Your task to perform on an android device: Go to Yahoo.com Image 0: 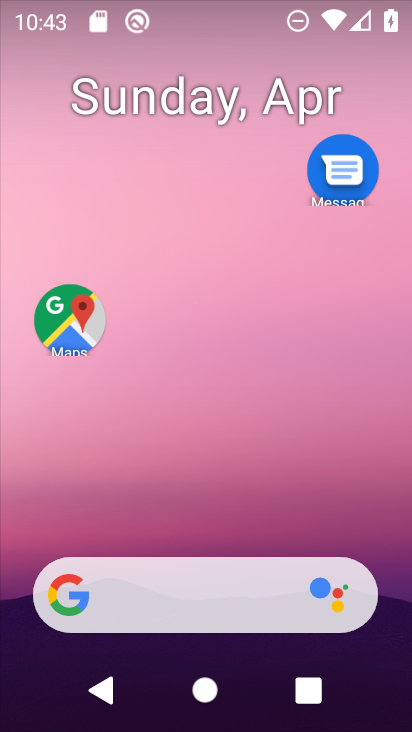
Step 0: drag from (233, 153) to (246, 65)
Your task to perform on an android device: Go to Yahoo.com Image 1: 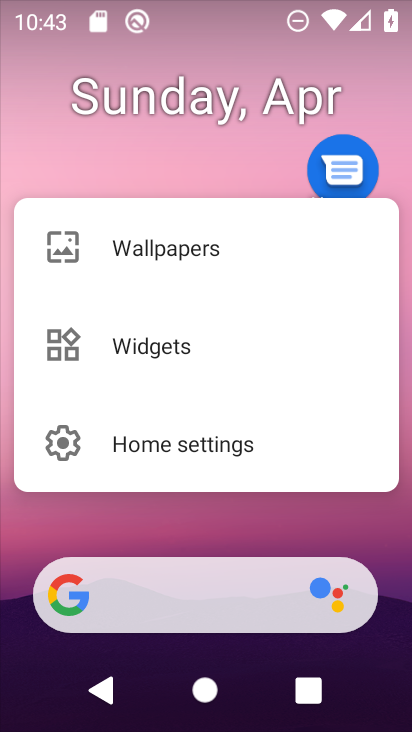
Step 1: click (132, 610)
Your task to perform on an android device: Go to Yahoo.com Image 2: 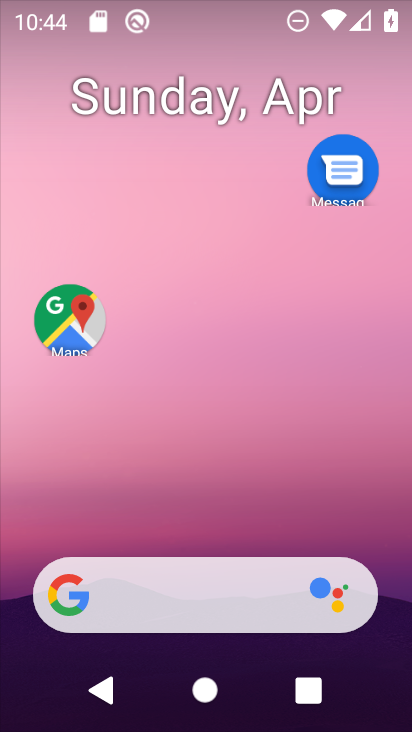
Step 2: drag from (173, 518) to (175, 4)
Your task to perform on an android device: Go to Yahoo.com Image 3: 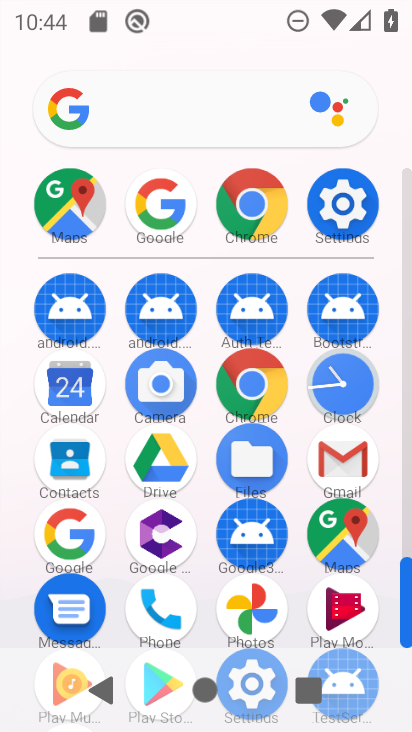
Step 3: drag from (215, 504) to (222, 52)
Your task to perform on an android device: Go to Yahoo.com Image 4: 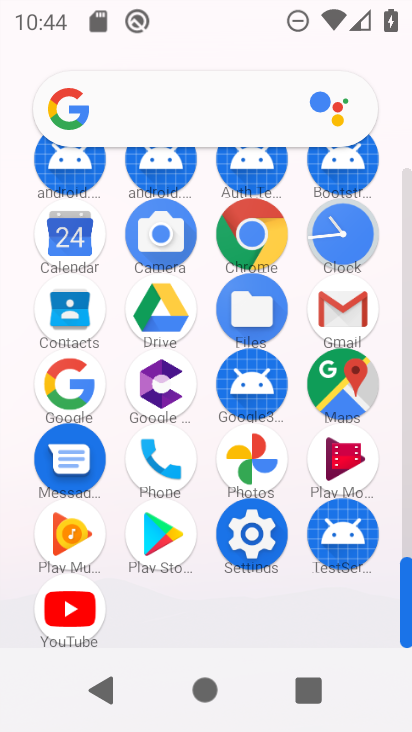
Step 4: click (179, 102)
Your task to perform on an android device: Go to Yahoo.com Image 5: 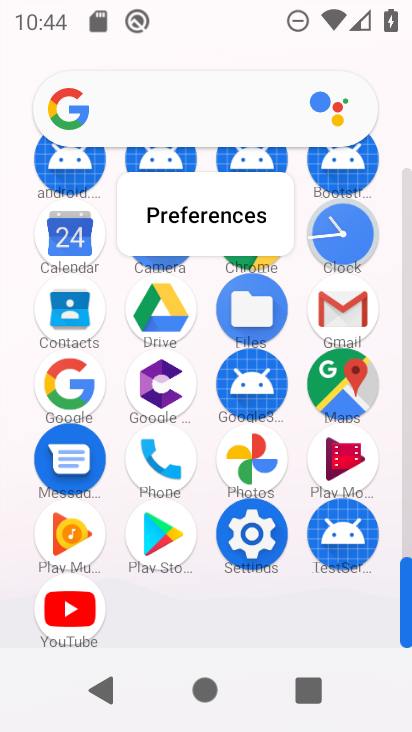
Step 5: click (151, 120)
Your task to perform on an android device: Go to Yahoo.com Image 6: 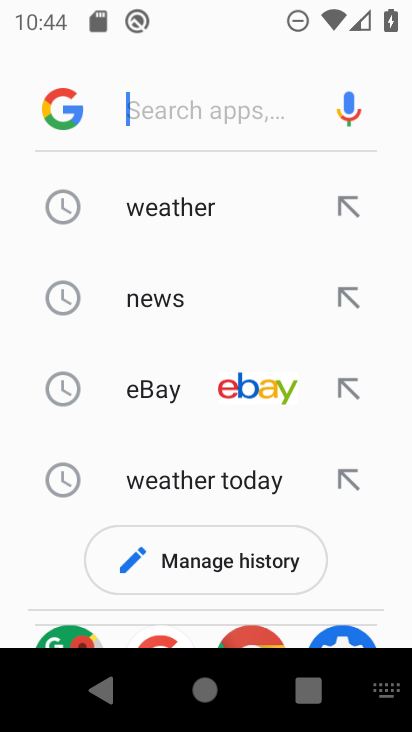
Step 6: click (197, 105)
Your task to perform on an android device: Go to Yahoo.com Image 7: 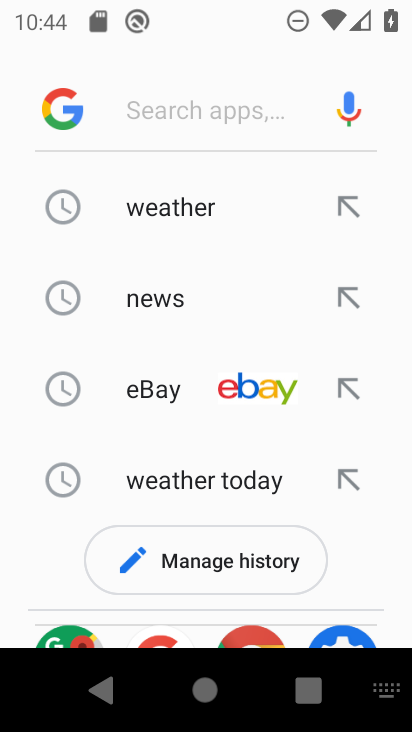
Step 7: type "yahoo.com"
Your task to perform on an android device: Go to Yahoo.com Image 8: 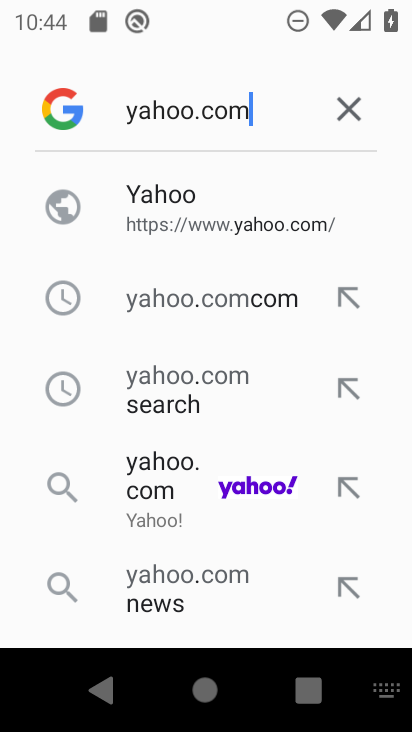
Step 8: click (187, 212)
Your task to perform on an android device: Go to Yahoo.com Image 9: 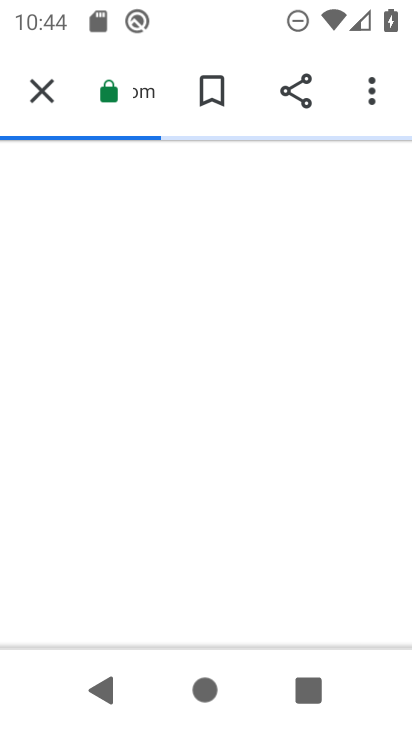
Step 9: task complete